Your task to perform on an android device: toggle sleep mode Image 0: 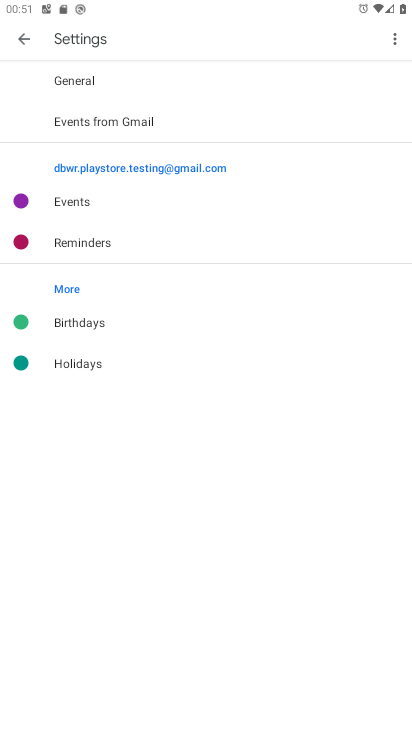
Step 0: press home button
Your task to perform on an android device: toggle sleep mode Image 1: 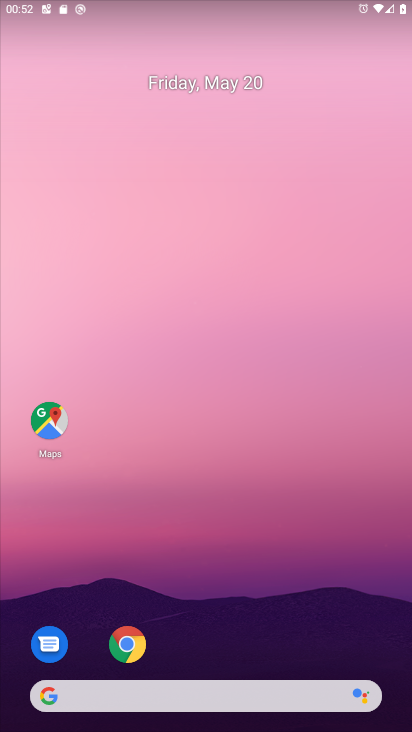
Step 1: drag from (199, 683) to (261, 267)
Your task to perform on an android device: toggle sleep mode Image 2: 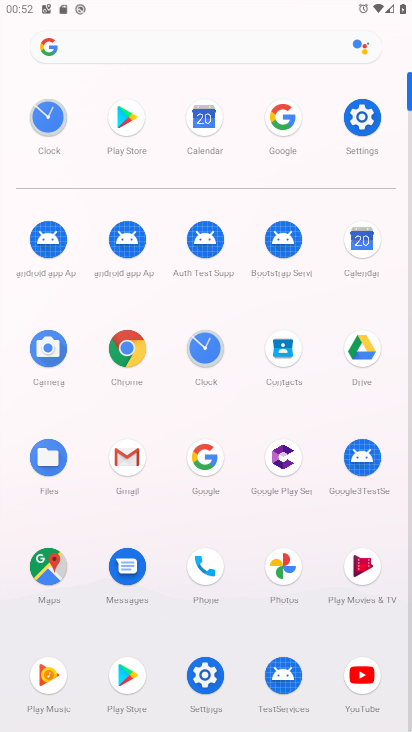
Step 2: click (352, 117)
Your task to perform on an android device: toggle sleep mode Image 3: 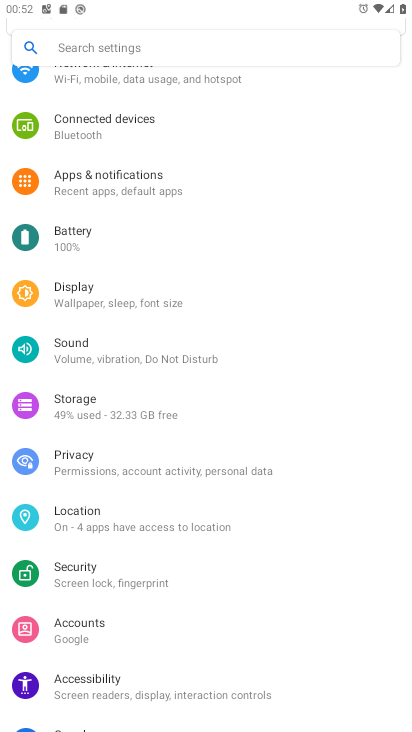
Step 3: click (145, 301)
Your task to perform on an android device: toggle sleep mode Image 4: 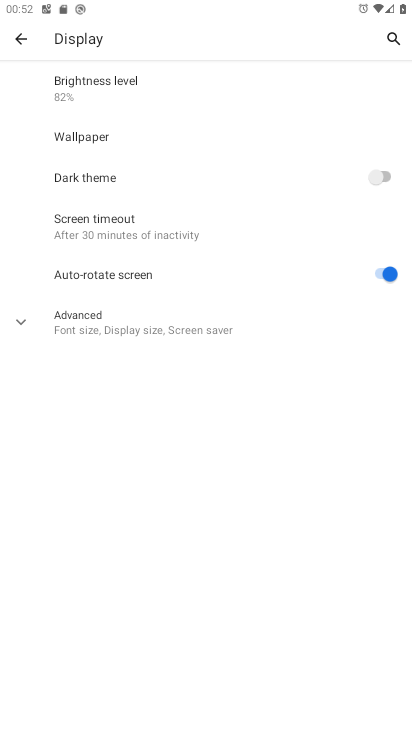
Step 4: click (135, 323)
Your task to perform on an android device: toggle sleep mode Image 5: 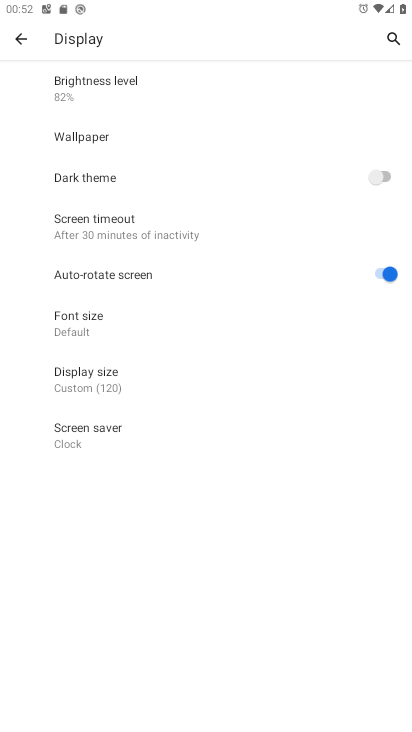
Step 5: click (98, 221)
Your task to perform on an android device: toggle sleep mode Image 6: 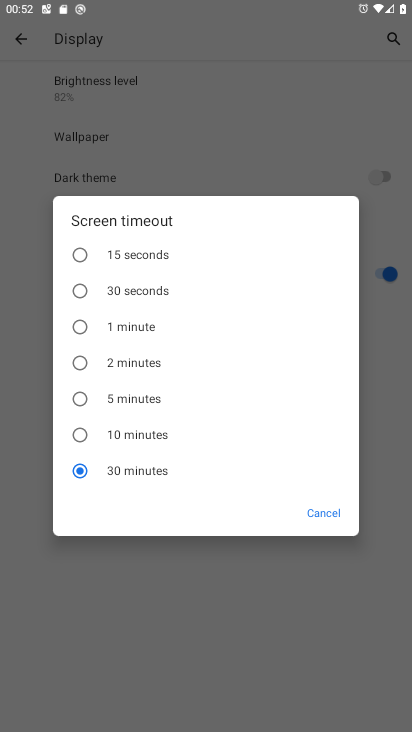
Step 6: click (106, 255)
Your task to perform on an android device: toggle sleep mode Image 7: 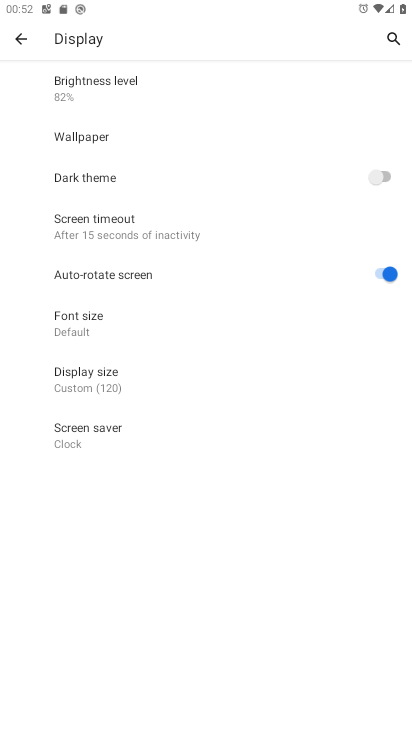
Step 7: task complete